Your task to perform on an android device: open device folders in google photos Image 0: 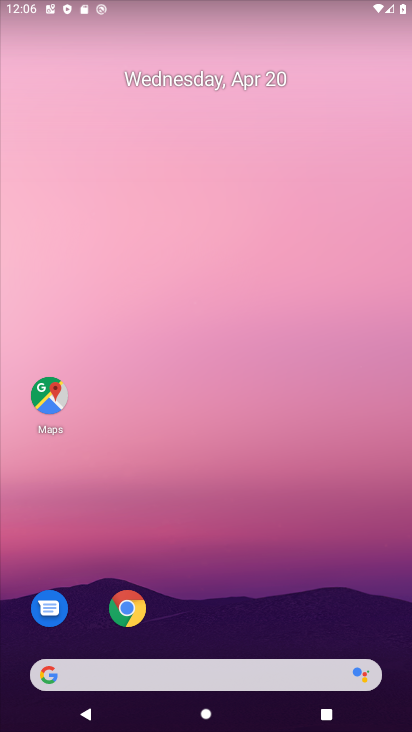
Step 0: drag from (245, 642) to (243, 22)
Your task to perform on an android device: open device folders in google photos Image 1: 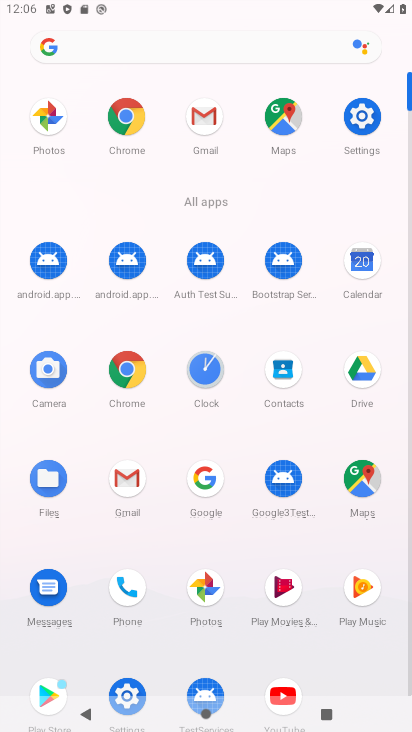
Step 1: click (201, 592)
Your task to perform on an android device: open device folders in google photos Image 2: 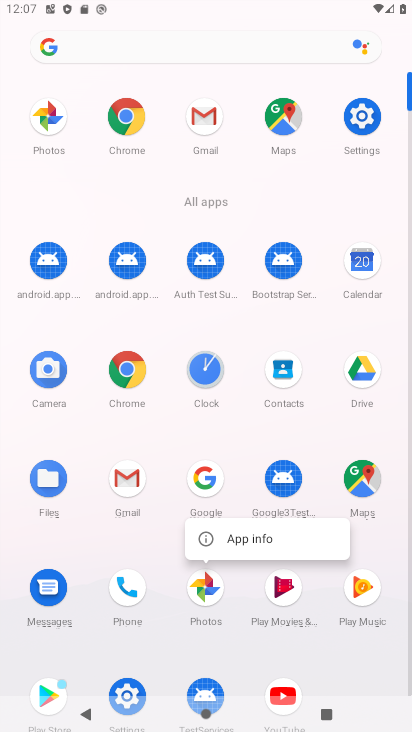
Step 2: click (201, 592)
Your task to perform on an android device: open device folders in google photos Image 3: 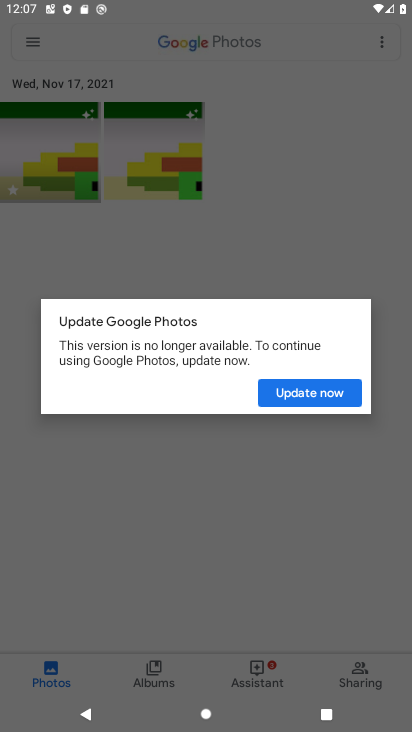
Step 3: click (299, 397)
Your task to perform on an android device: open device folders in google photos Image 4: 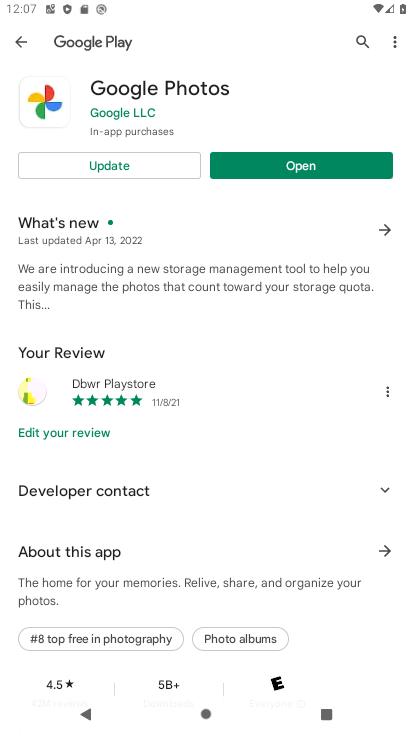
Step 4: click (266, 170)
Your task to perform on an android device: open device folders in google photos Image 5: 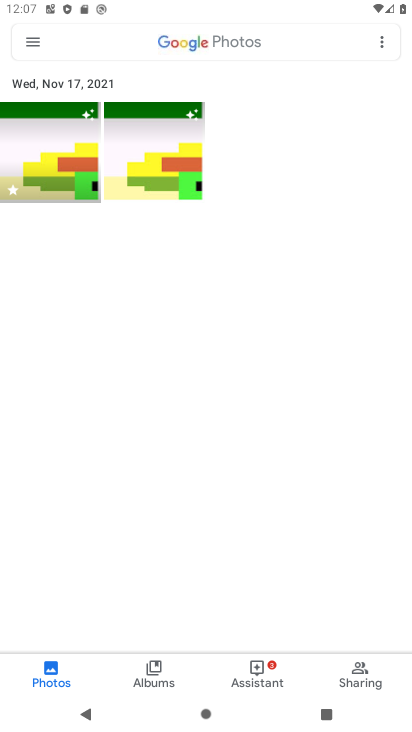
Step 5: click (28, 35)
Your task to perform on an android device: open device folders in google photos Image 6: 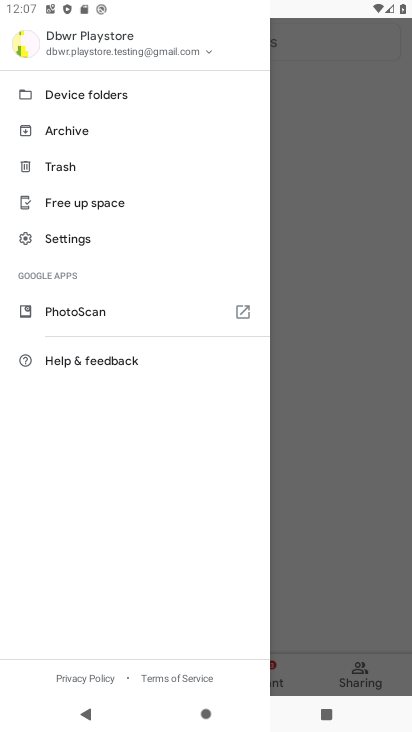
Step 6: click (103, 96)
Your task to perform on an android device: open device folders in google photos Image 7: 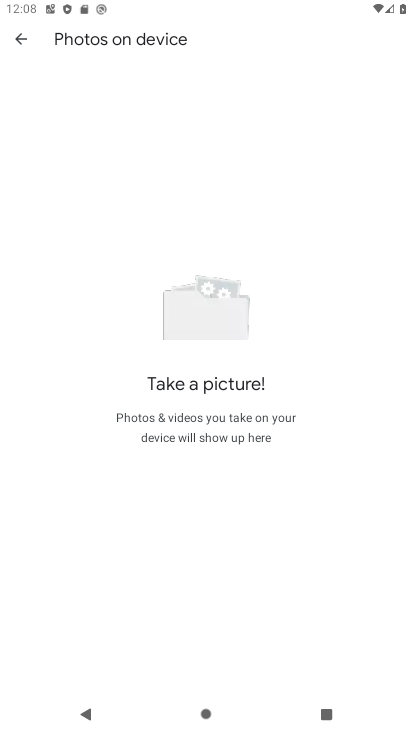
Step 7: task complete